Your task to perform on an android device: What's the latest news in space exploration? Image 0: 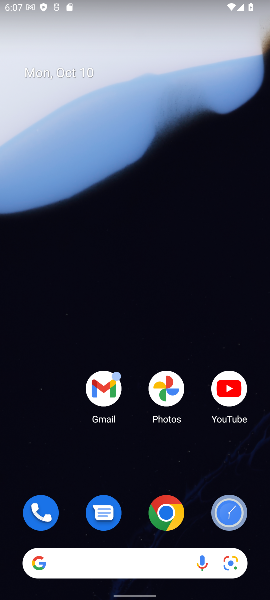
Step 0: drag from (134, 541) to (150, 83)
Your task to perform on an android device: What's the latest news in space exploration? Image 1: 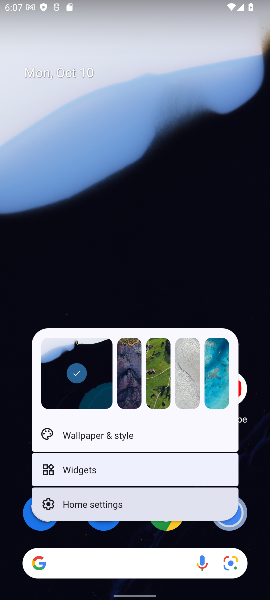
Step 1: click (128, 141)
Your task to perform on an android device: What's the latest news in space exploration? Image 2: 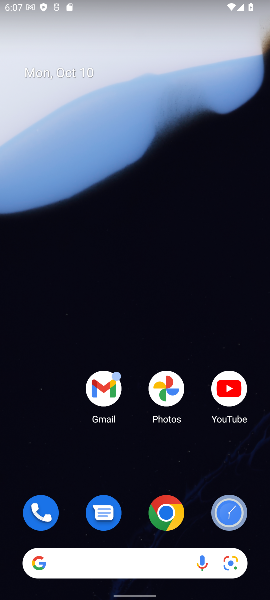
Step 2: task complete